Your task to perform on an android device: turn on showing notifications on the lock screen Image 0: 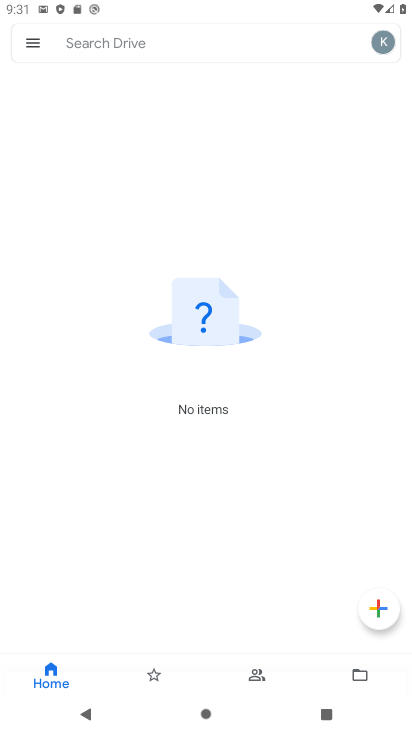
Step 0: press home button
Your task to perform on an android device: turn on showing notifications on the lock screen Image 1: 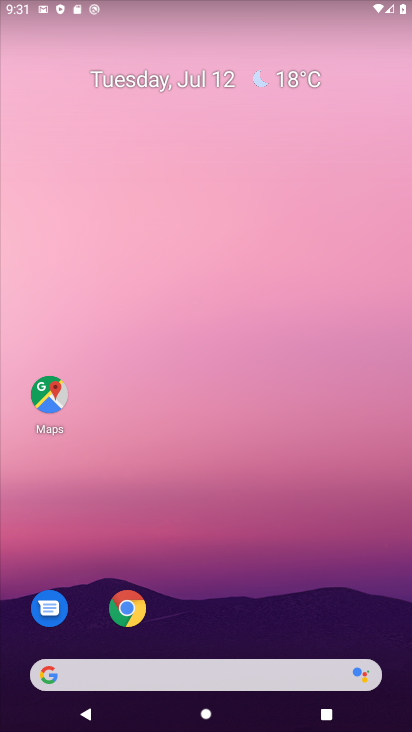
Step 1: drag from (223, 539) to (182, 103)
Your task to perform on an android device: turn on showing notifications on the lock screen Image 2: 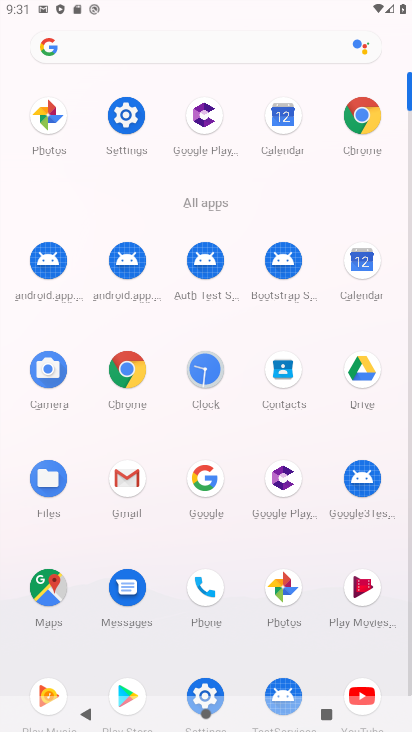
Step 2: click (126, 107)
Your task to perform on an android device: turn on showing notifications on the lock screen Image 3: 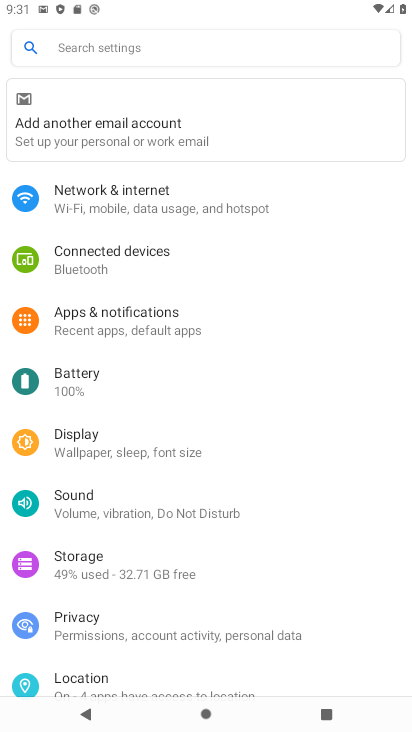
Step 3: click (120, 318)
Your task to perform on an android device: turn on showing notifications on the lock screen Image 4: 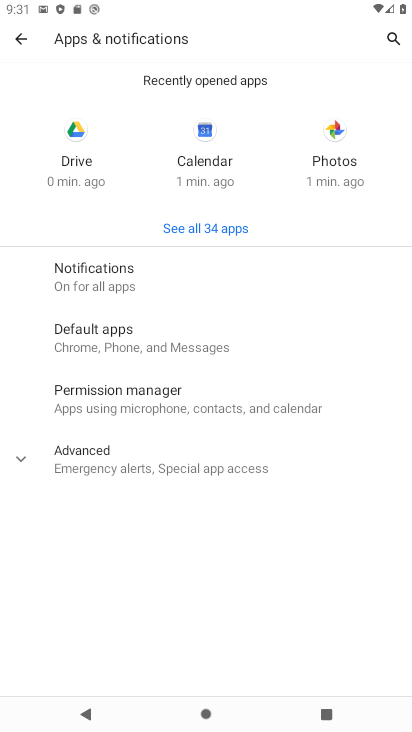
Step 4: click (93, 267)
Your task to perform on an android device: turn on showing notifications on the lock screen Image 5: 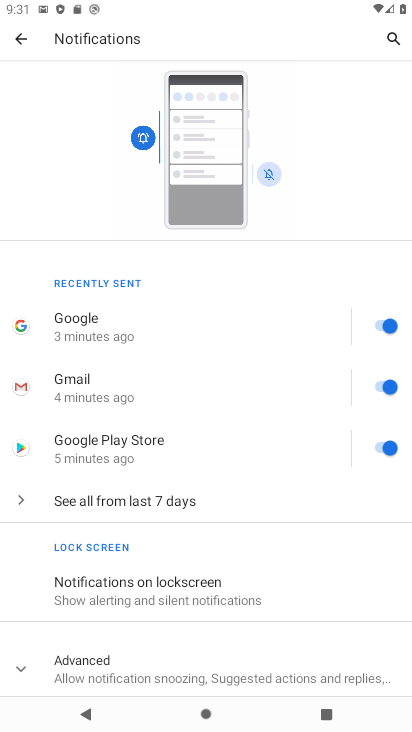
Step 5: click (142, 582)
Your task to perform on an android device: turn on showing notifications on the lock screen Image 6: 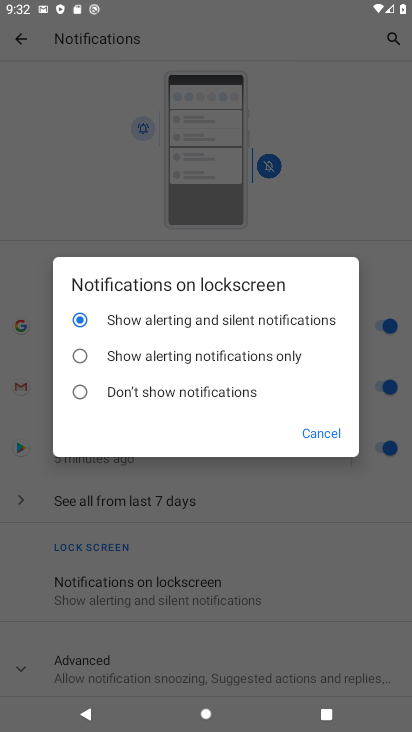
Step 6: task complete